Your task to perform on an android device: Go to wifi settings Image 0: 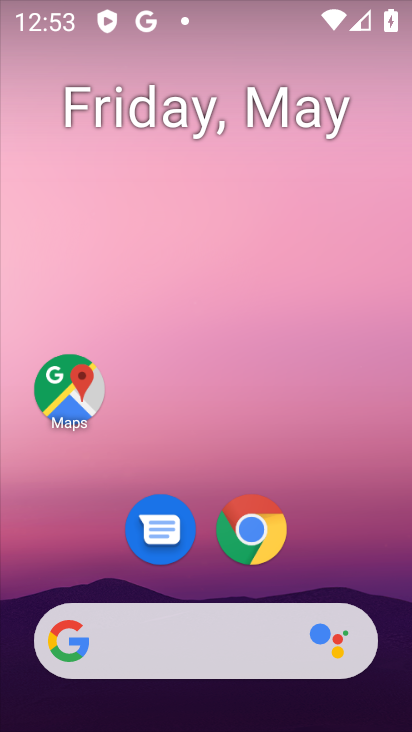
Step 0: drag from (95, 585) to (256, 137)
Your task to perform on an android device: Go to wifi settings Image 1: 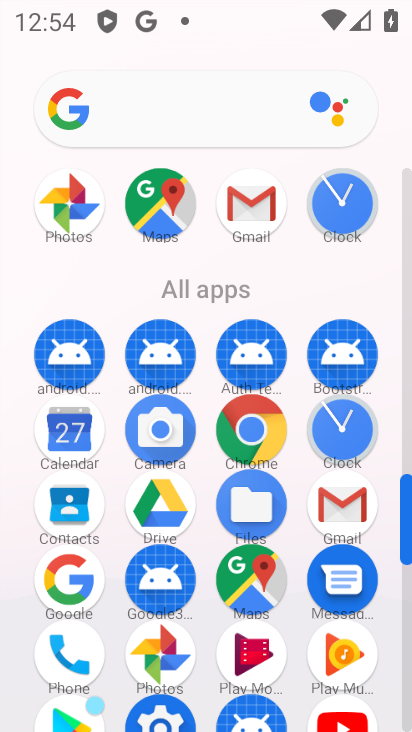
Step 1: drag from (103, 640) to (219, 303)
Your task to perform on an android device: Go to wifi settings Image 2: 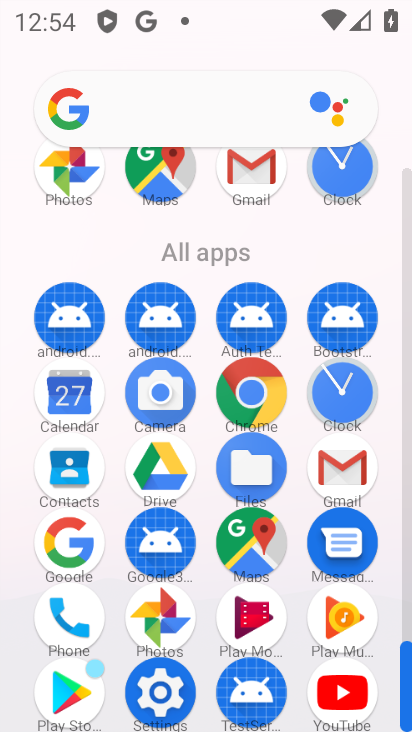
Step 2: click (154, 694)
Your task to perform on an android device: Go to wifi settings Image 3: 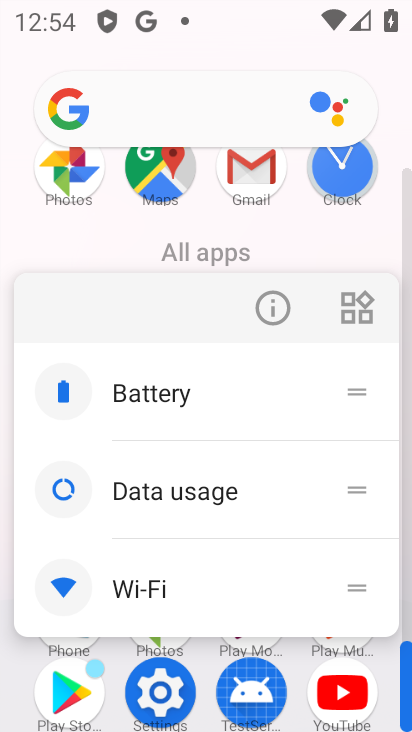
Step 3: click (170, 694)
Your task to perform on an android device: Go to wifi settings Image 4: 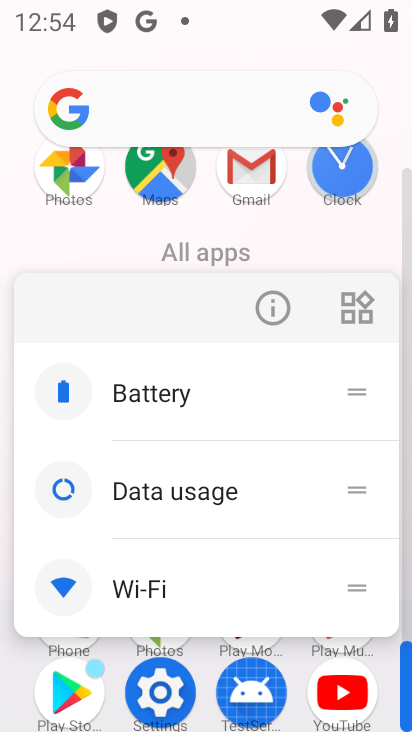
Step 4: click (163, 704)
Your task to perform on an android device: Go to wifi settings Image 5: 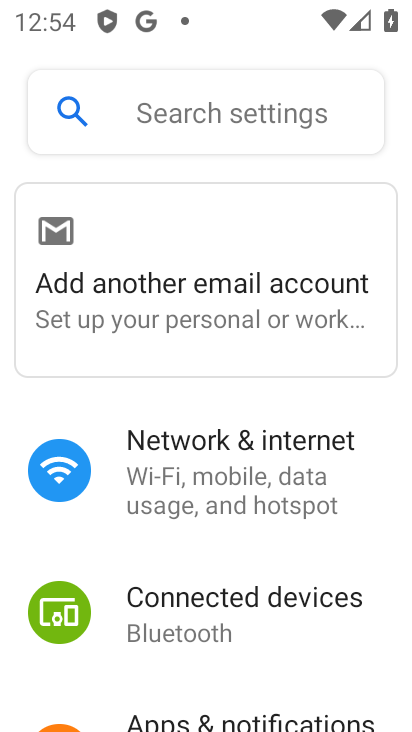
Step 5: click (229, 482)
Your task to perform on an android device: Go to wifi settings Image 6: 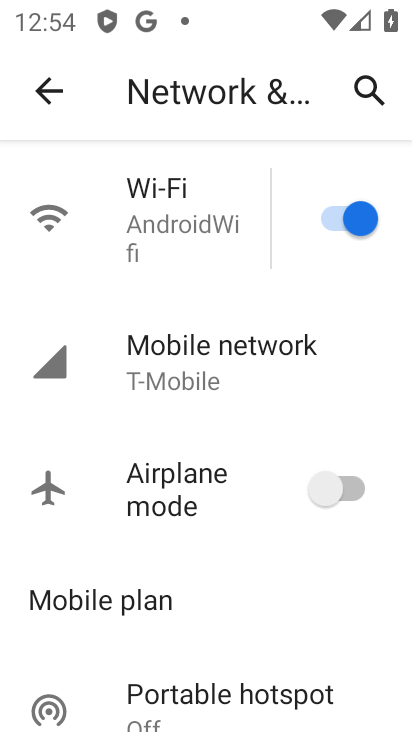
Step 6: click (173, 262)
Your task to perform on an android device: Go to wifi settings Image 7: 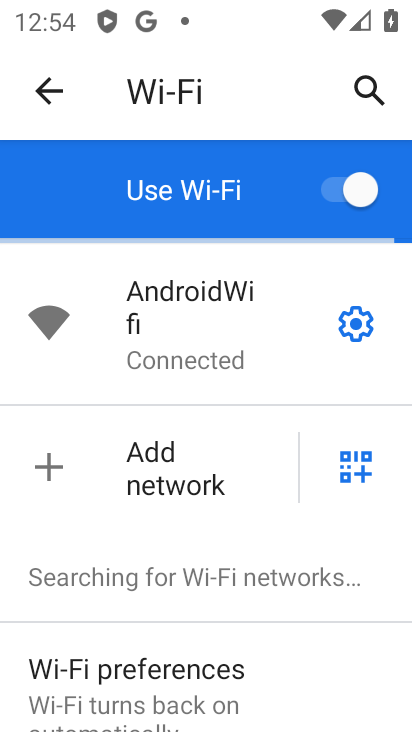
Step 7: task complete